Your task to perform on an android device: turn on the 12-hour format for clock Image 0: 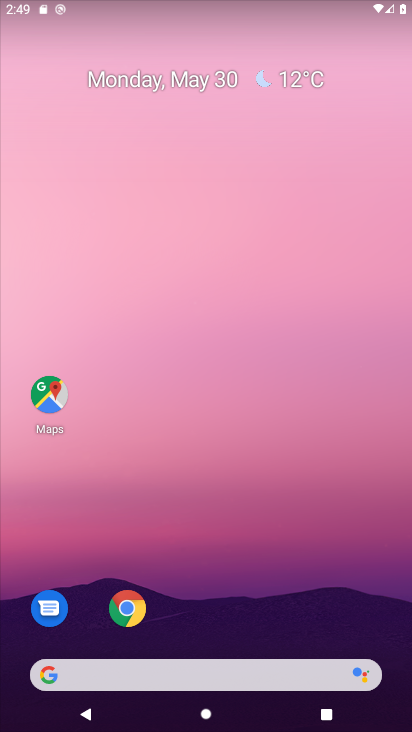
Step 0: drag from (329, 587) to (245, 83)
Your task to perform on an android device: turn on the 12-hour format for clock Image 1: 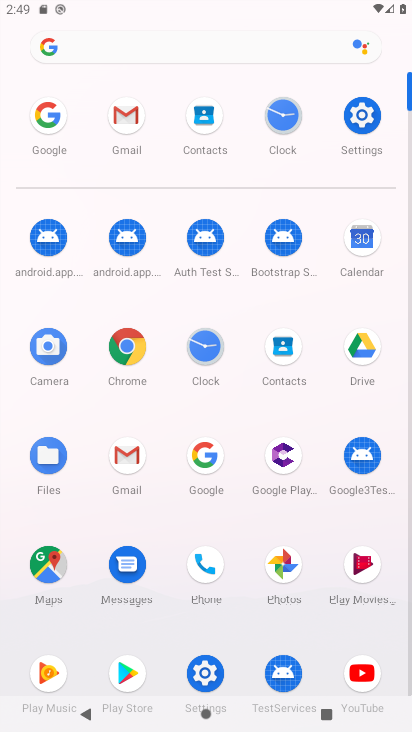
Step 1: click (201, 341)
Your task to perform on an android device: turn on the 12-hour format for clock Image 2: 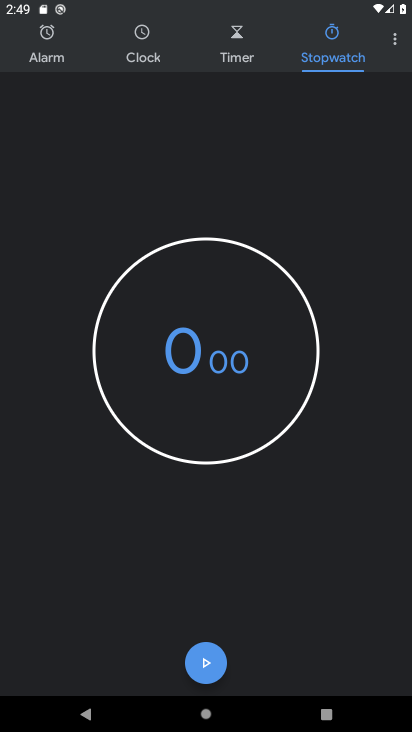
Step 2: click (398, 39)
Your task to perform on an android device: turn on the 12-hour format for clock Image 3: 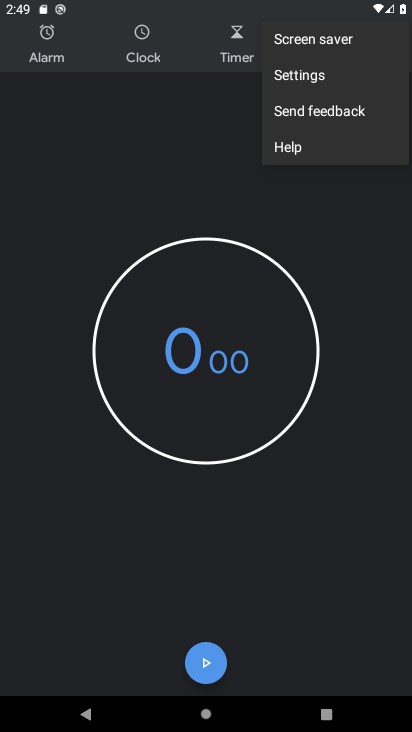
Step 3: click (292, 79)
Your task to perform on an android device: turn on the 12-hour format for clock Image 4: 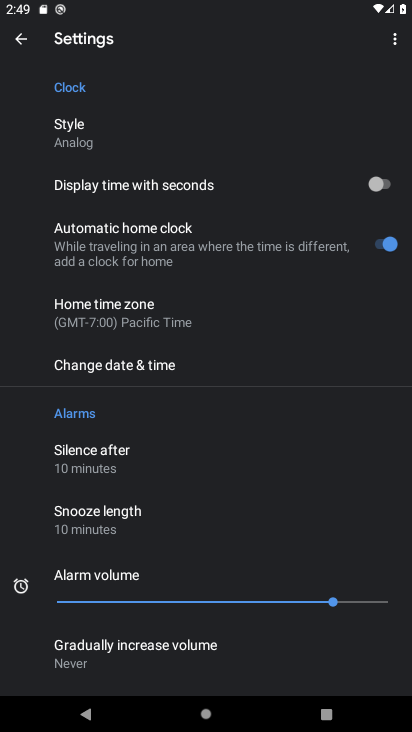
Step 4: click (166, 362)
Your task to perform on an android device: turn on the 12-hour format for clock Image 5: 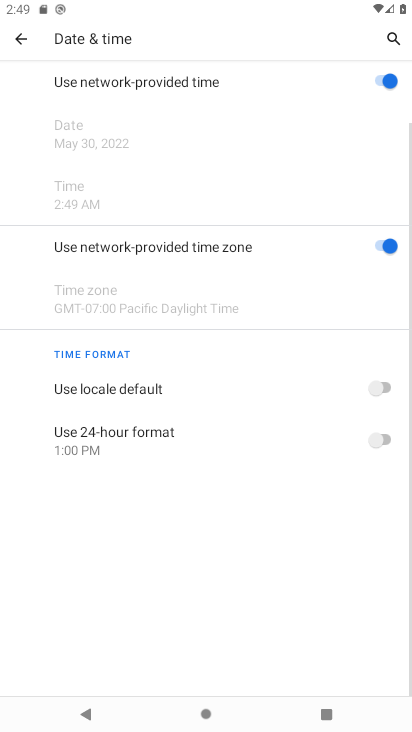
Step 5: click (381, 384)
Your task to perform on an android device: turn on the 12-hour format for clock Image 6: 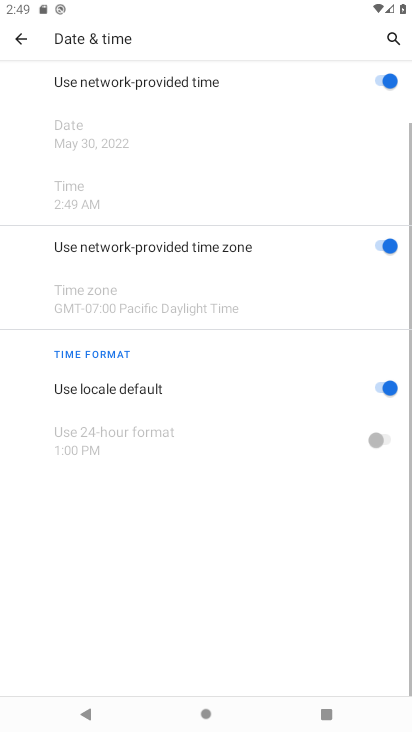
Step 6: task complete